Your task to perform on an android device: remove spam from my inbox in the gmail app Image 0: 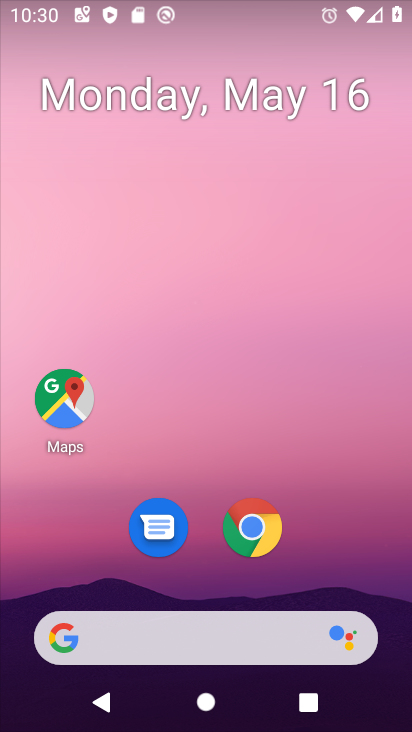
Step 0: drag from (395, 595) to (359, 3)
Your task to perform on an android device: remove spam from my inbox in the gmail app Image 1: 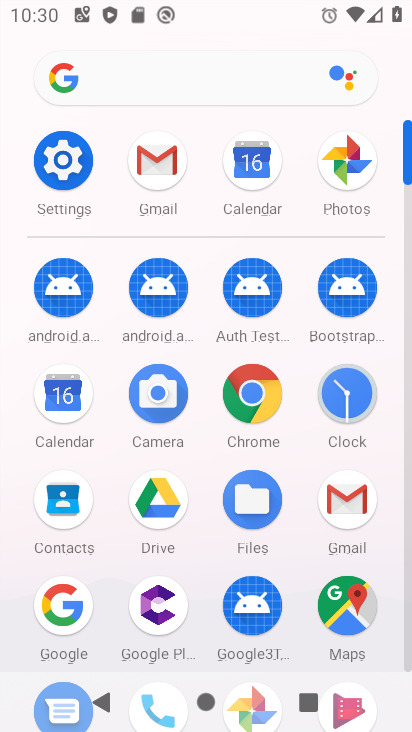
Step 1: click (158, 166)
Your task to perform on an android device: remove spam from my inbox in the gmail app Image 2: 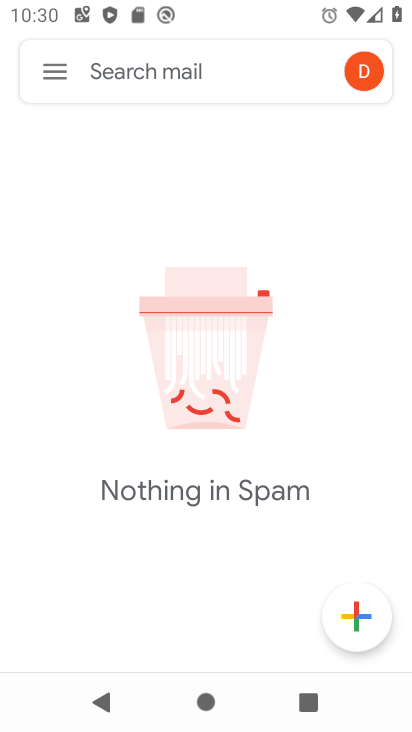
Step 2: task complete